Your task to perform on an android device: manage bookmarks in the chrome app Image 0: 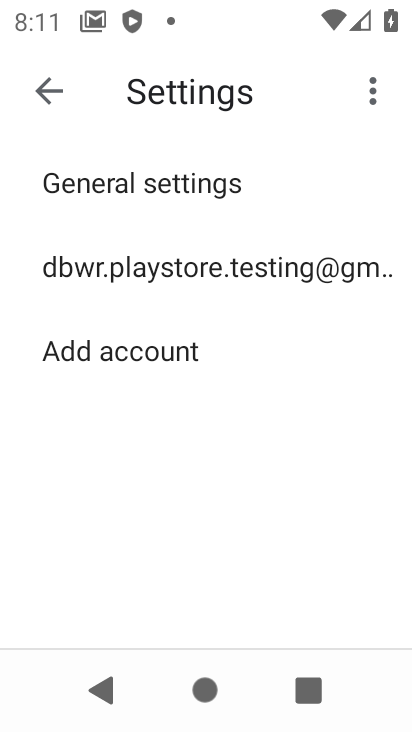
Step 0: press home button
Your task to perform on an android device: manage bookmarks in the chrome app Image 1: 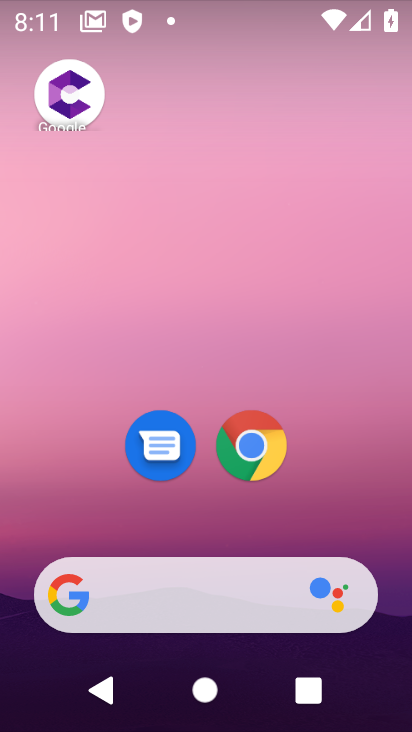
Step 1: click (265, 443)
Your task to perform on an android device: manage bookmarks in the chrome app Image 2: 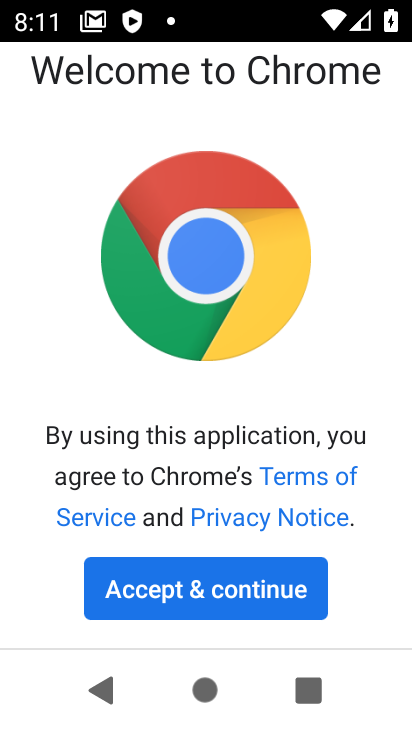
Step 2: click (287, 590)
Your task to perform on an android device: manage bookmarks in the chrome app Image 3: 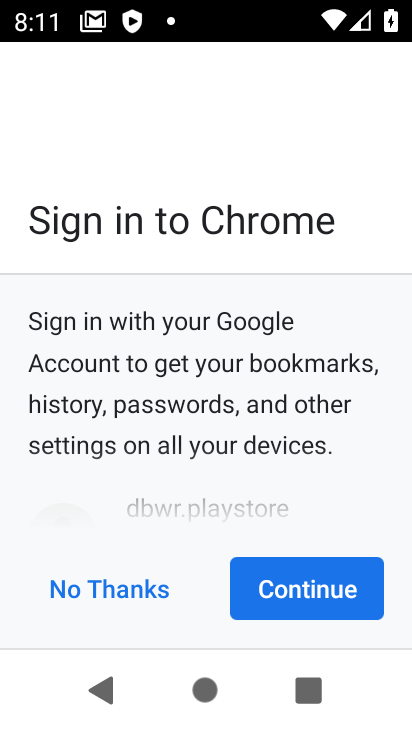
Step 3: click (158, 588)
Your task to perform on an android device: manage bookmarks in the chrome app Image 4: 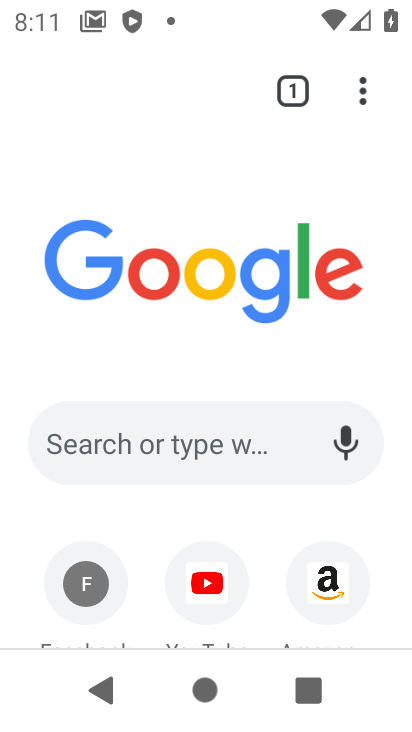
Step 4: click (367, 84)
Your task to perform on an android device: manage bookmarks in the chrome app Image 5: 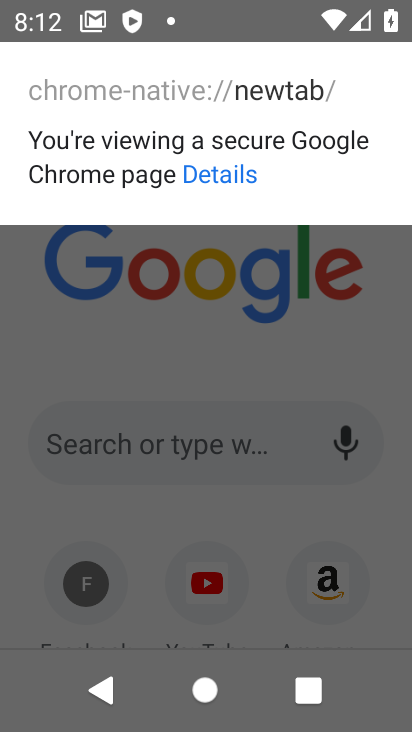
Step 5: click (358, 341)
Your task to perform on an android device: manage bookmarks in the chrome app Image 6: 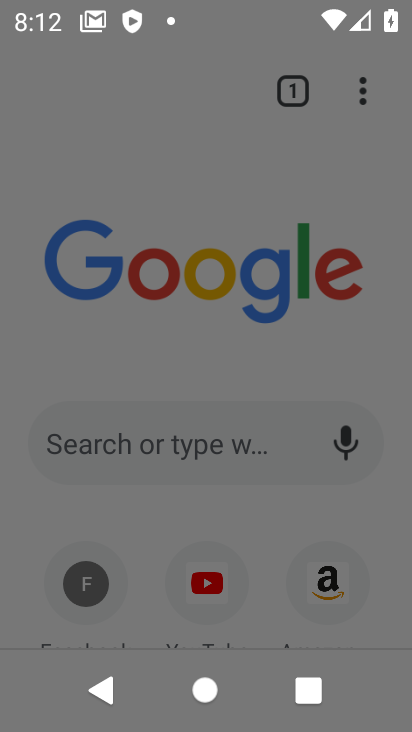
Step 6: click (358, 341)
Your task to perform on an android device: manage bookmarks in the chrome app Image 7: 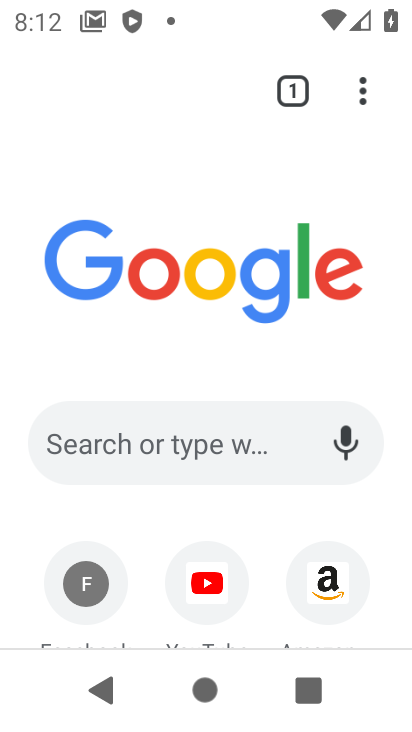
Step 7: click (363, 86)
Your task to perform on an android device: manage bookmarks in the chrome app Image 8: 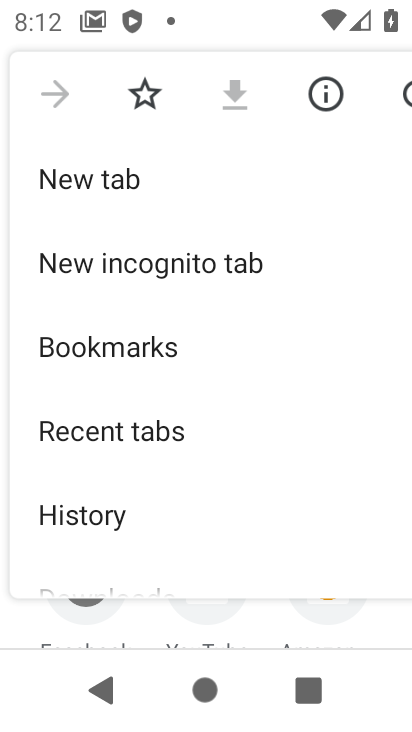
Step 8: click (207, 337)
Your task to perform on an android device: manage bookmarks in the chrome app Image 9: 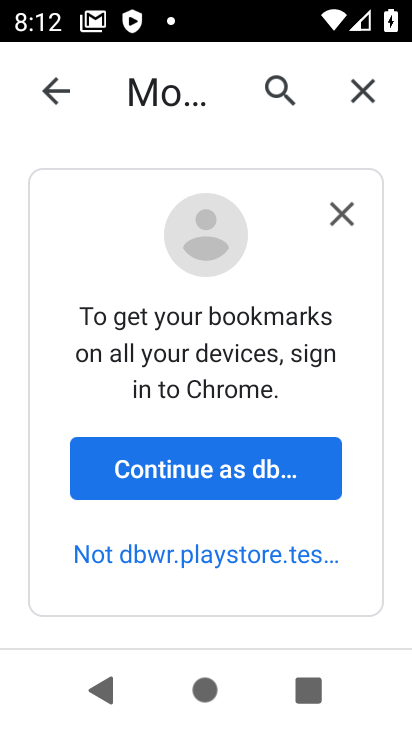
Step 9: click (349, 206)
Your task to perform on an android device: manage bookmarks in the chrome app Image 10: 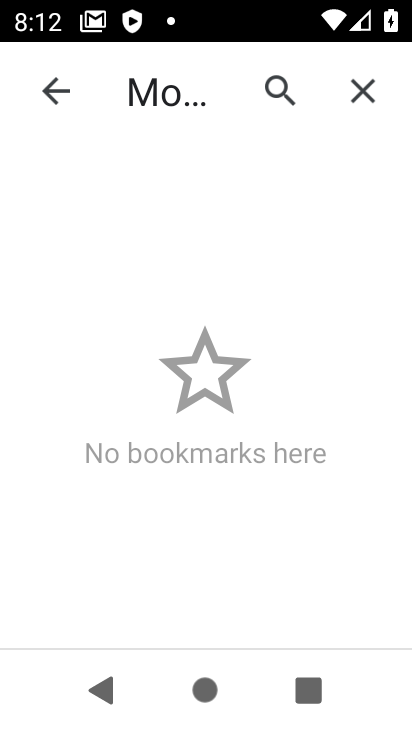
Step 10: task complete